Your task to perform on an android device: check data usage Image 0: 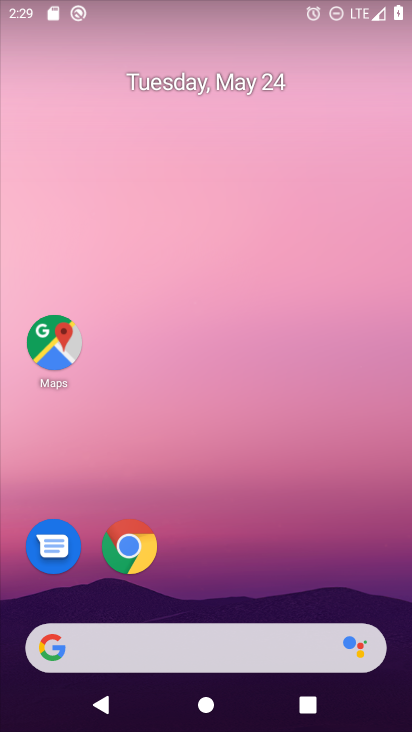
Step 0: drag from (341, 647) to (349, 3)
Your task to perform on an android device: check data usage Image 1: 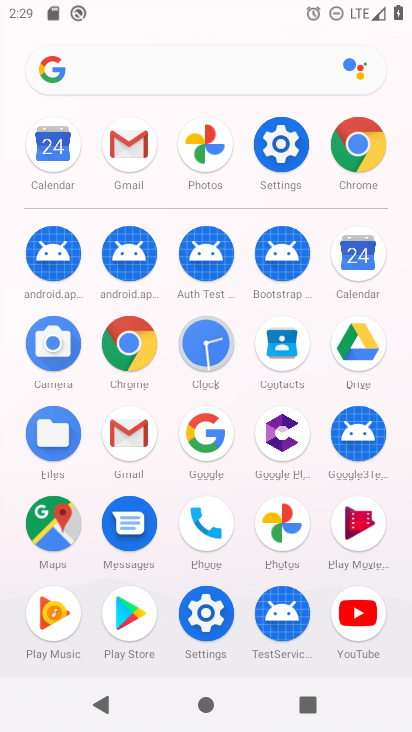
Step 1: click (295, 140)
Your task to perform on an android device: check data usage Image 2: 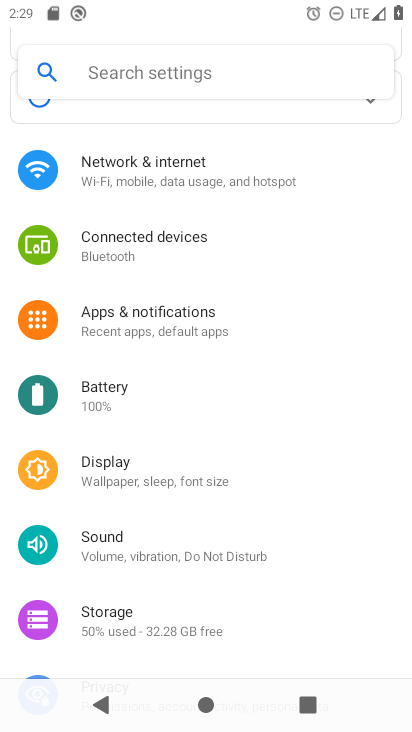
Step 2: click (257, 184)
Your task to perform on an android device: check data usage Image 3: 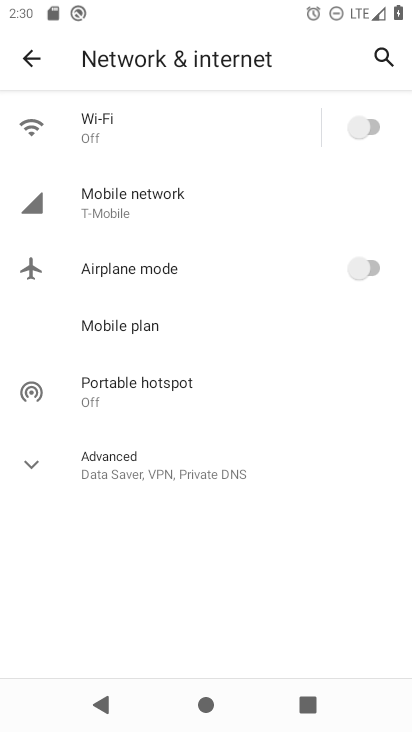
Step 3: task complete